Your task to perform on an android device: turn off location Image 0: 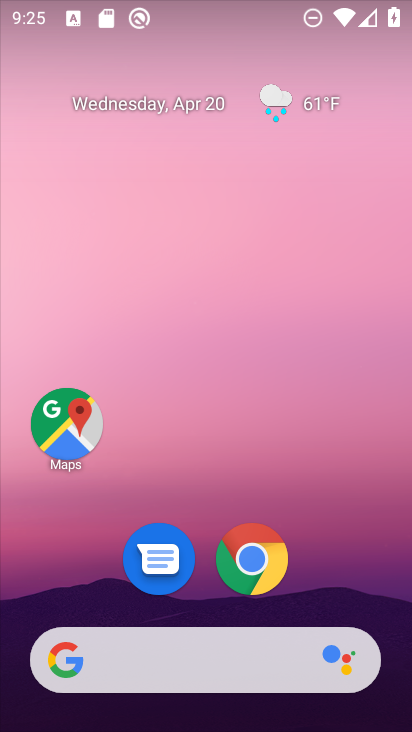
Step 0: drag from (386, 568) to (303, 232)
Your task to perform on an android device: turn off location Image 1: 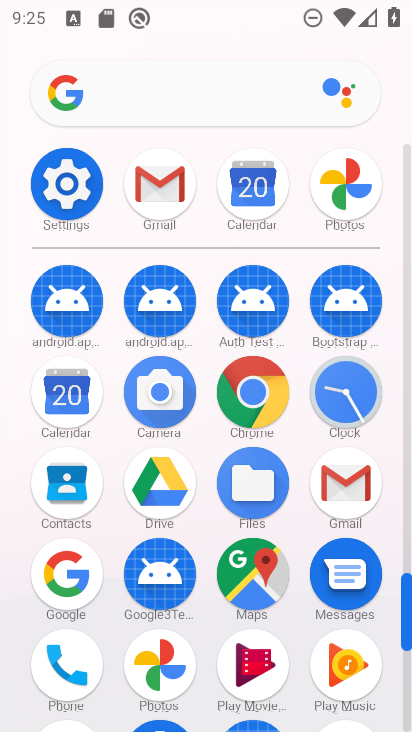
Step 1: click (408, 683)
Your task to perform on an android device: turn off location Image 2: 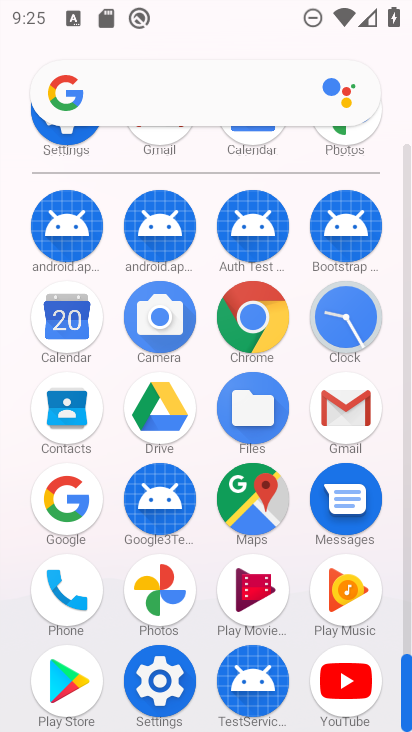
Step 2: click (160, 688)
Your task to perform on an android device: turn off location Image 3: 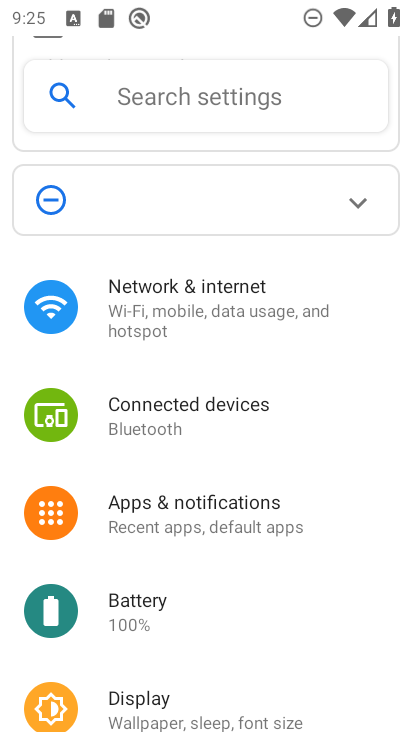
Step 3: drag from (294, 650) to (325, 417)
Your task to perform on an android device: turn off location Image 4: 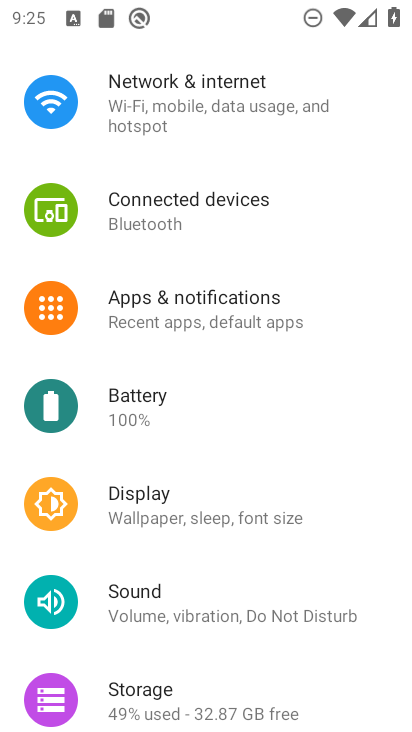
Step 4: drag from (293, 614) to (288, 395)
Your task to perform on an android device: turn off location Image 5: 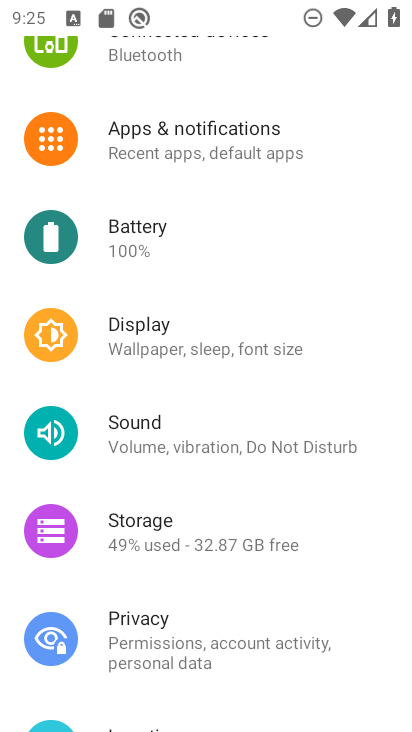
Step 5: drag from (299, 624) to (331, 274)
Your task to perform on an android device: turn off location Image 6: 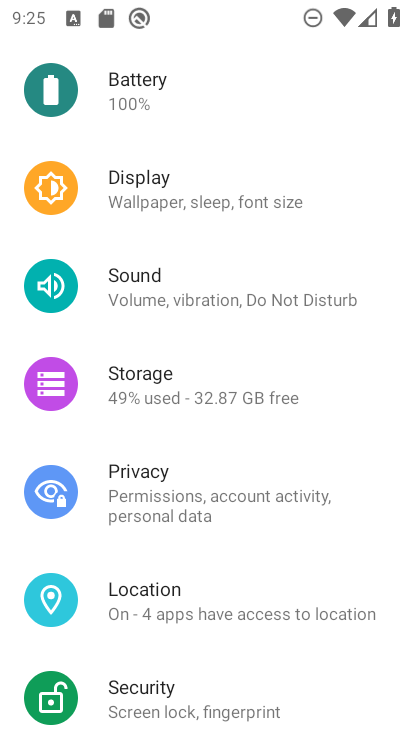
Step 6: click (150, 599)
Your task to perform on an android device: turn off location Image 7: 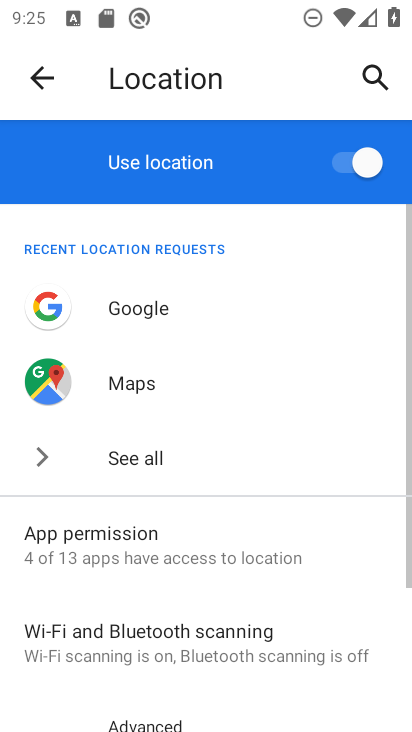
Step 7: click (336, 161)
Your task to perform on an android device: turn off location Image 8: 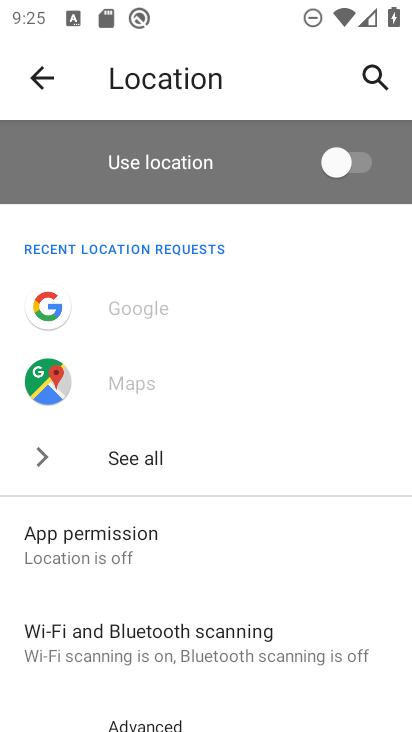
Step 8: task complete